Your task to perform on an android device: turn pop-ups on in chrome Image 0: 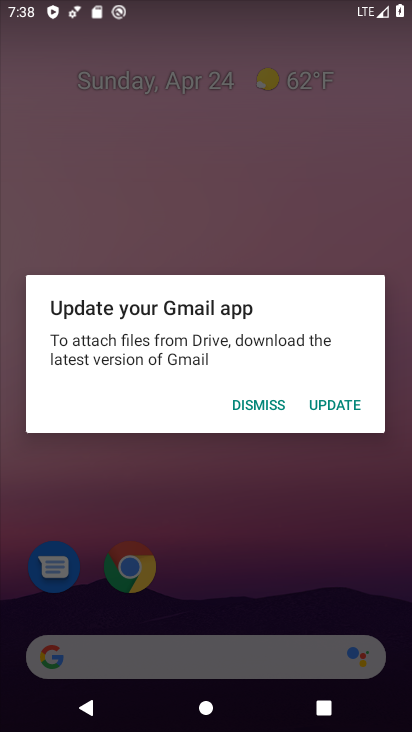
Step 0: press home button
Your task to perform on an android device: turn pop-ups on in chrome Image 1: 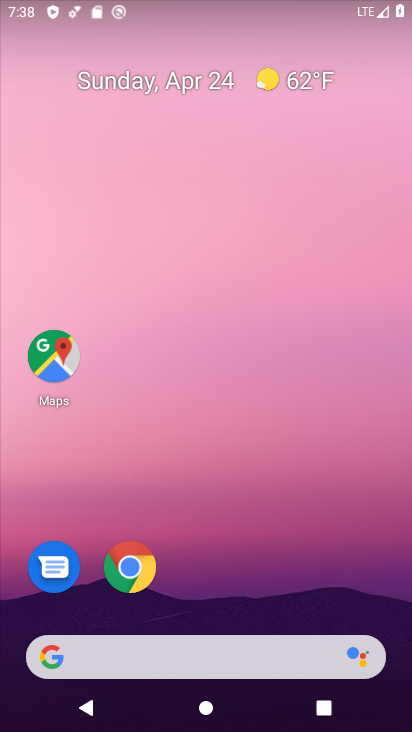
Step 1: click (130, 567)
Your task to perform on an android device: turn pop-ups on in chrome Image 2: 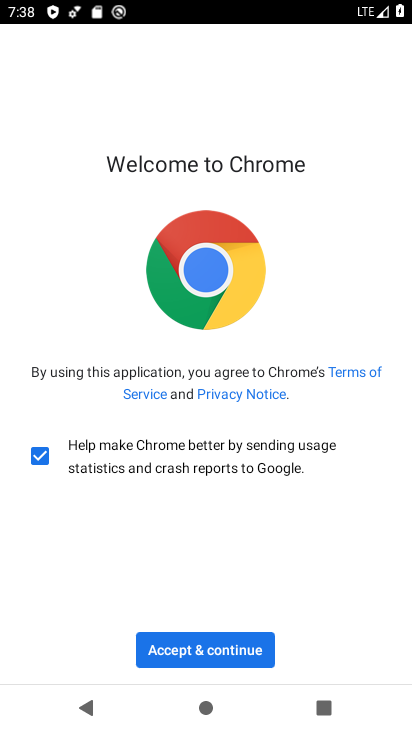
Step 2: click (218, 653)
Your task to perform on an android device: turn pop-ups on in chrome Image 3: 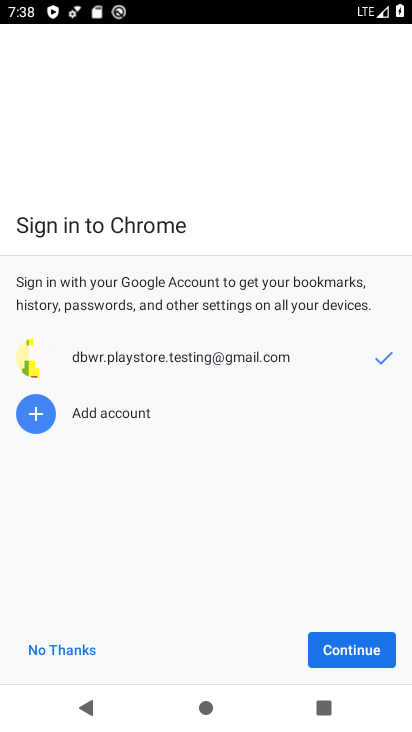
Step 3: click (338, 657)
Your task to perform on an android device: turn pop-ups on in chrome Image 4: 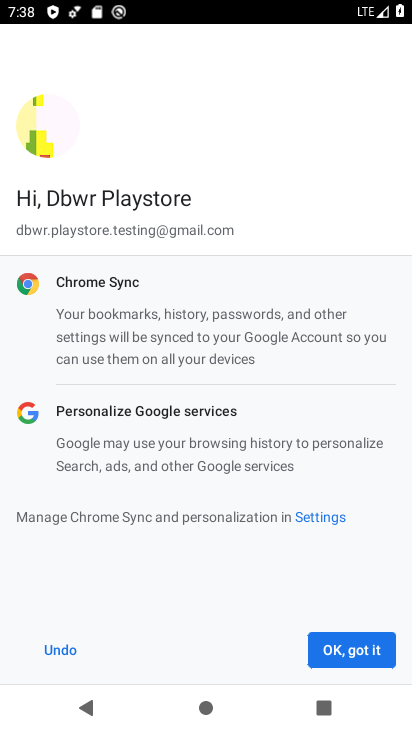
Step 4: click (340, 655)
Your task to perform on an android device: turn pop-ups on in chrome Image 5: 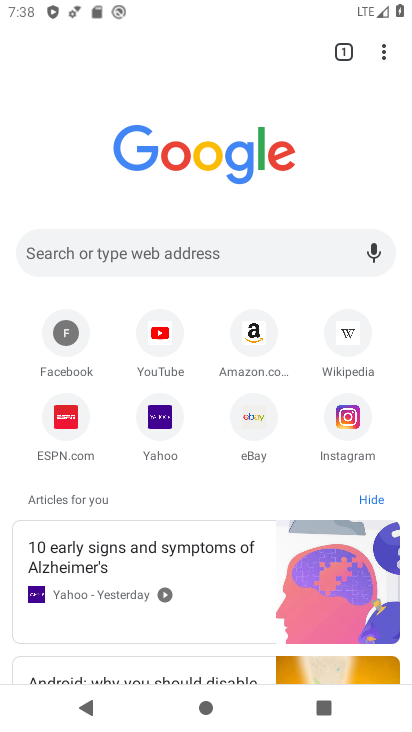
Step 5: click (384, 53)
Your task to perform on an android device: turn pop-ups on in chrome Image 6: 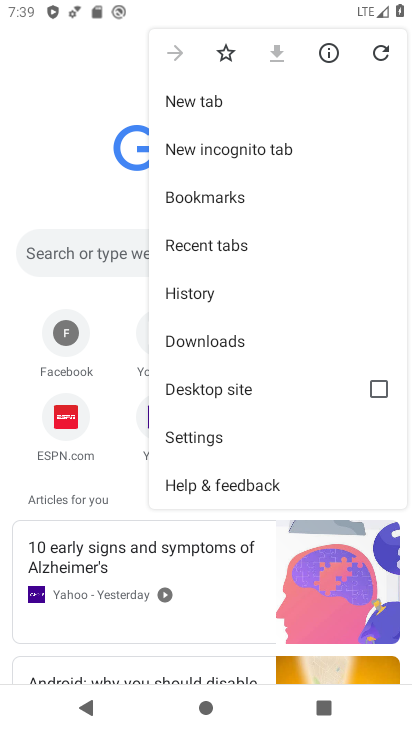
Step 6: click (207, 439)
Your task to perform on an android device: turn pop-ups on in chrome Image 7: 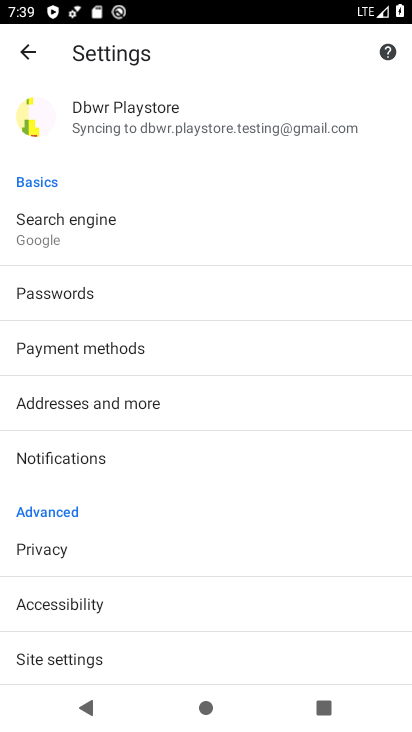
Step 7: click (71, 657)
Your task to perform on an android device: turn pop-ups on in chrome Image 8: 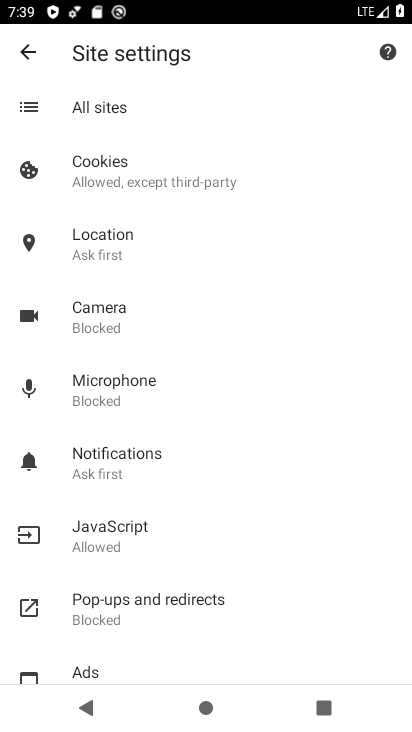
Step 8: click (130, 606)
Your task to perform on an android device: turn pop-ups on in chrome Image 9: 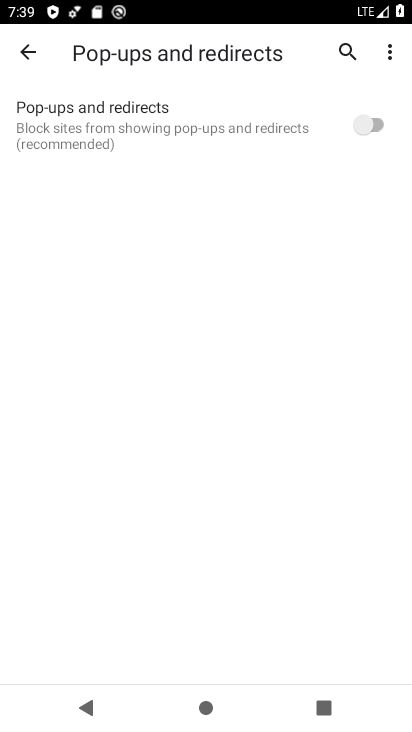
Step 9: click (362, 125)
Your task to perform on an android device: turn pop-ups on in chrome Image 10: 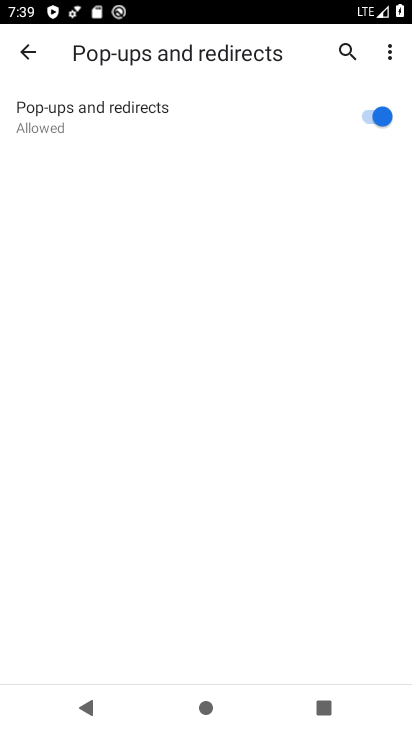
Step 10: task complete